Your task to perform on an android device: Search for Italian restaurants on Maps Image 0: 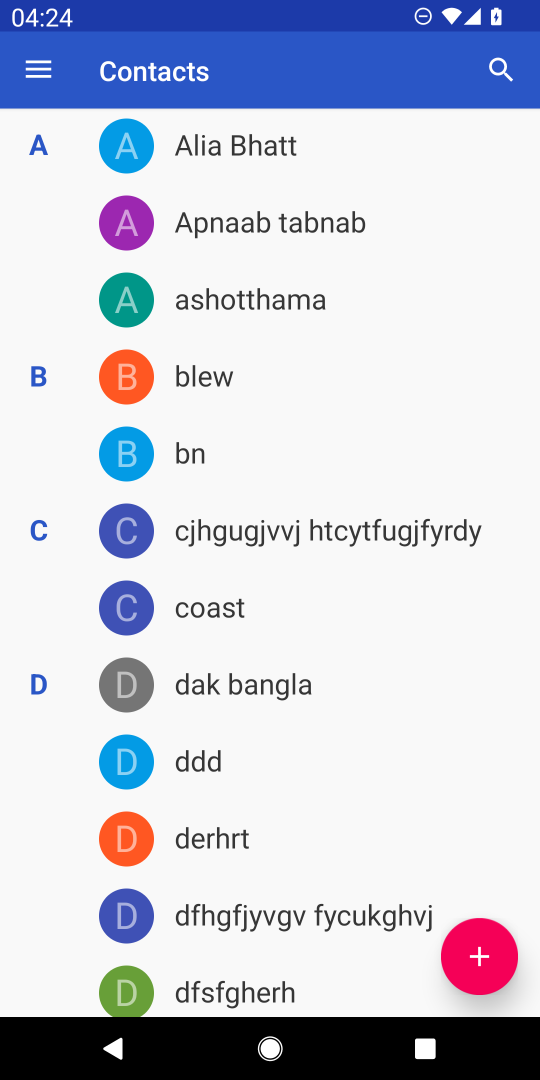
Step 0: press home button
Your task to perform on an android device: Search for Italian restaurants on Maps Image 1: 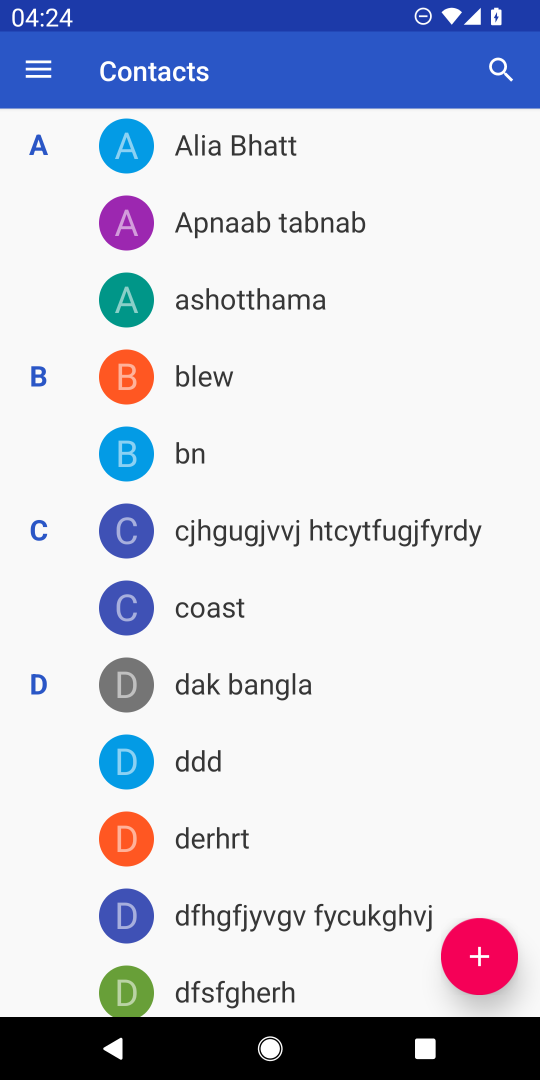
Step 1: press home button
Your task to perform on an android device: Search for Italian restaurants on Maps Image 2: 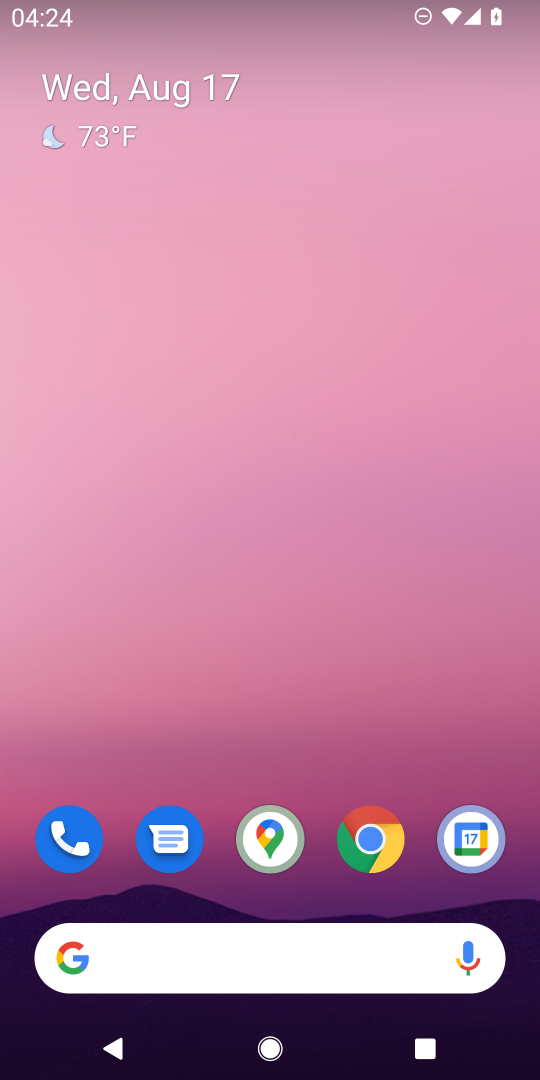
Step 2: drag from (335, 779) to (361, 7)
Your task to perform on an android device: Search for Italian restaurants on Maps Image 3: 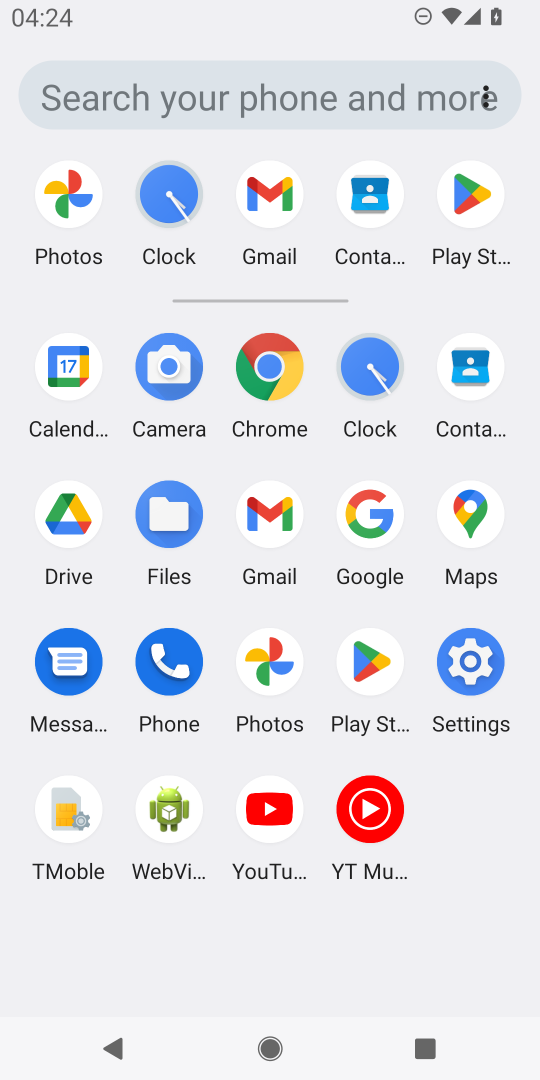
Step 3: click (477, 524)
Your task to perform on an android device: Search for Italian restaurants on Maps Image 4: 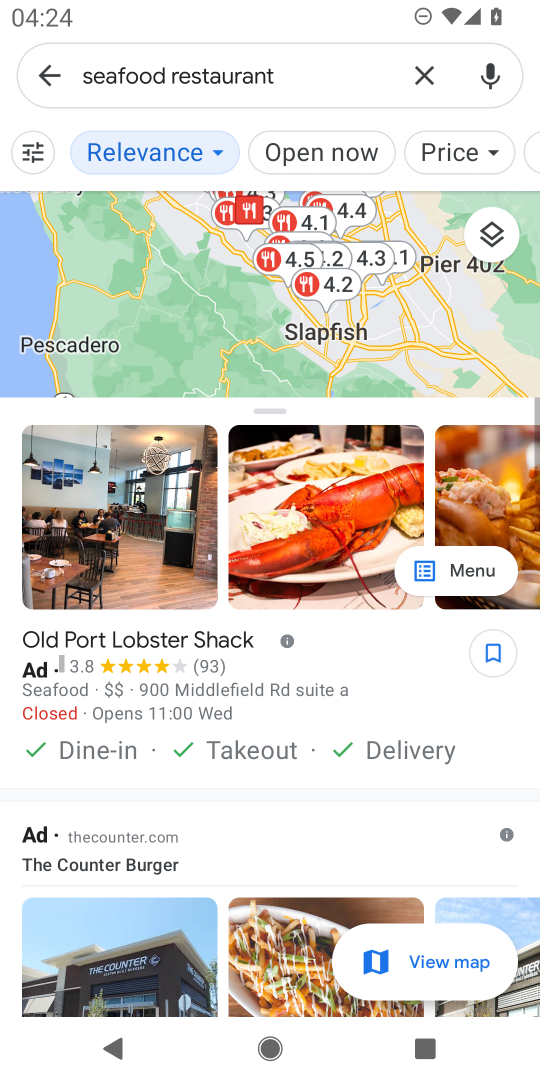
Step 4: click (398, 68)
Your task to perform on an android device: Search for Italian restaurants on Maps Image 5: 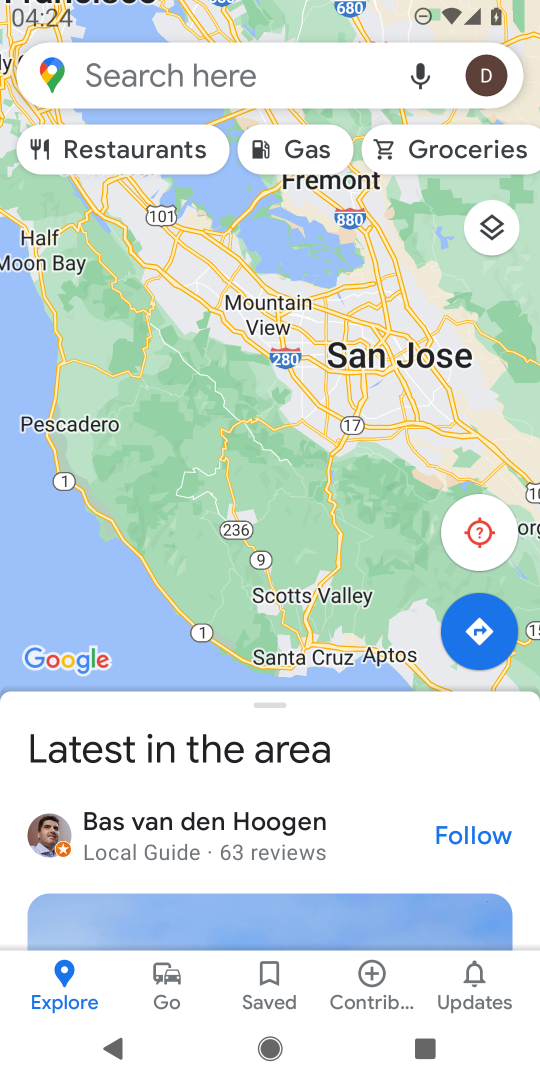
Step 5: click (287, 69)
Your task to perform on an android device: Search for Italian restaurants on Maps Image 6: 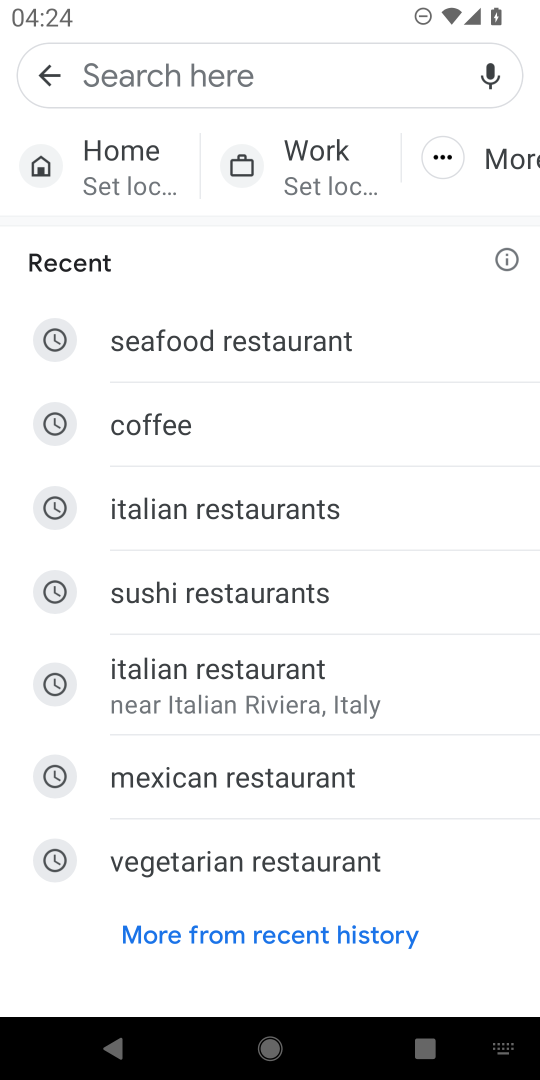
Step 6: type "Italian restaurants"
Your task to perform on an android device: Search for Italian restaurants on Maps Image 7: 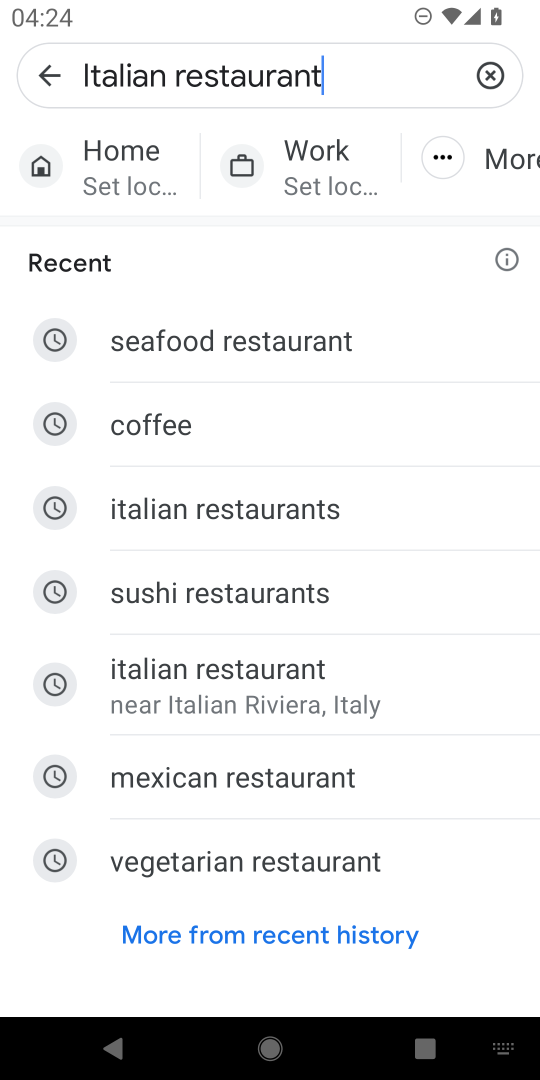
Step 7: type ""
Your task to perform on an android device: Search for Italian restaurants on Maps Image 8: 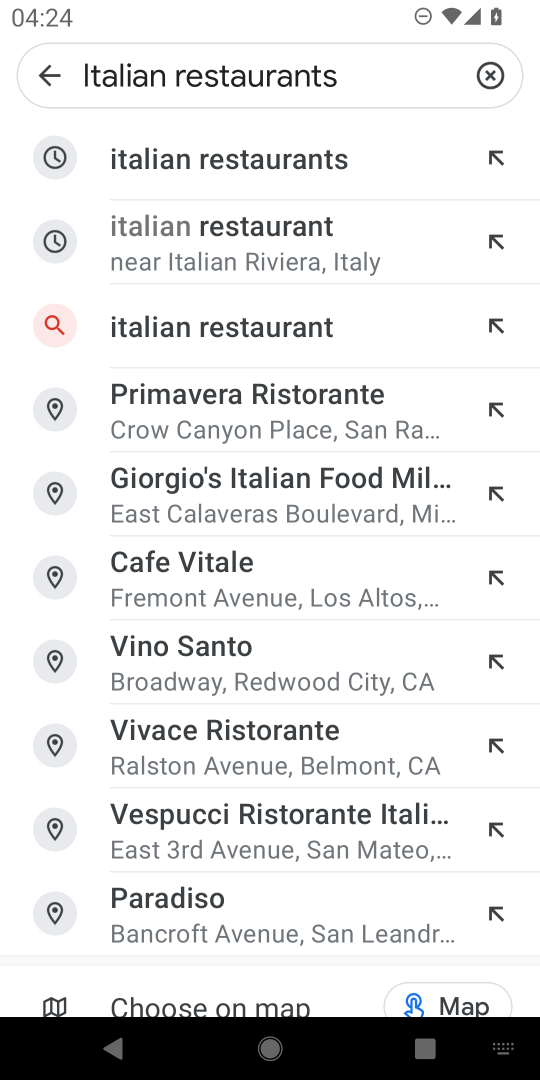
Step 8: click (227, 155)
Your task to perform on an android device: Search for Italian restaurants on Maps Image 9: 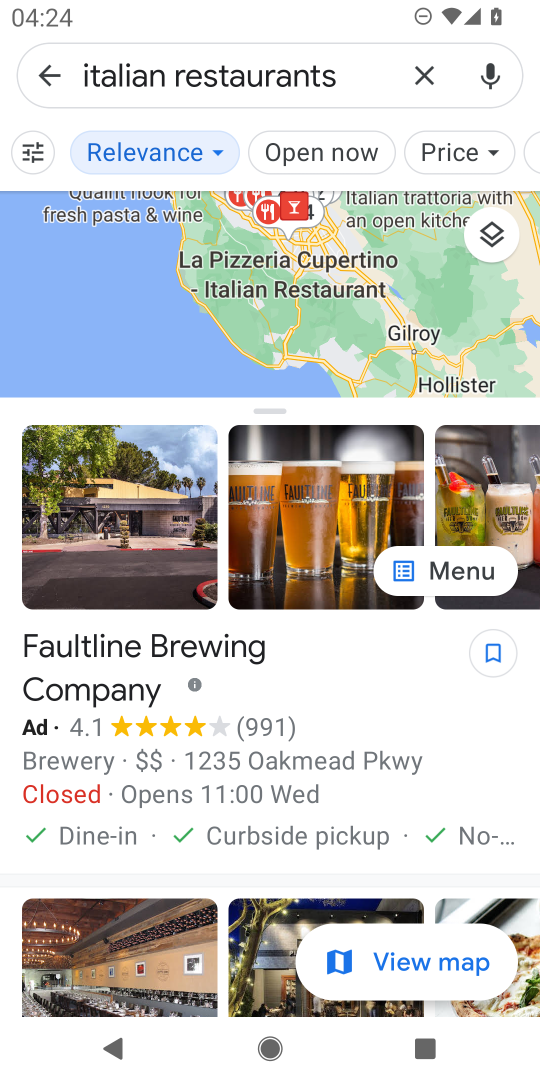
Step 9: task complete